Your task to perform on an android device: Open privacy settings Image 0: 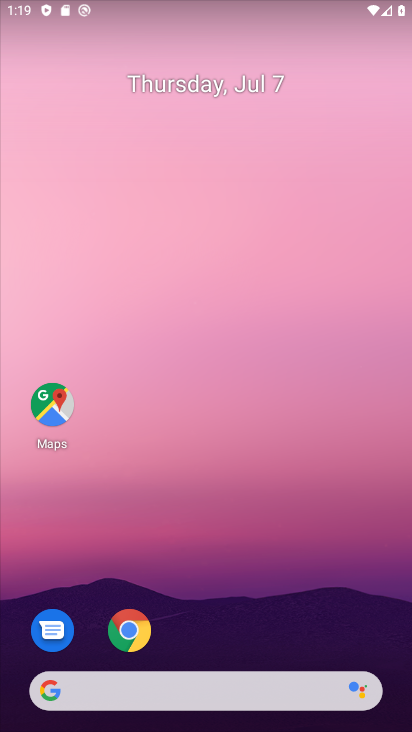
Step 0: drag from (245, 616) to (220, 83)
Your task to perform on an android device: Open privacy settings Image 1: 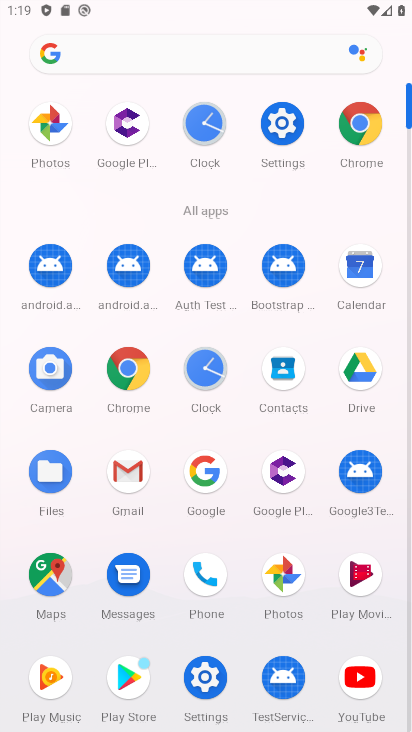
Step 1: click (283, 131)
Your task to perform on an android device: Open privacy settings Image 2: 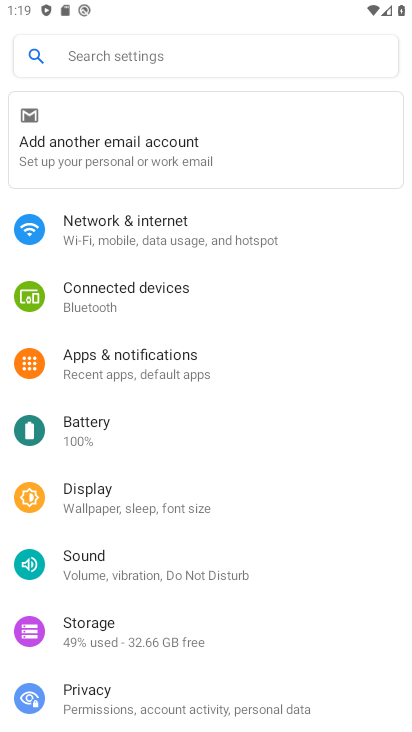
Step 2: click (203, 680)
Your task to perform on an android device: Open privacy settings Image 3: 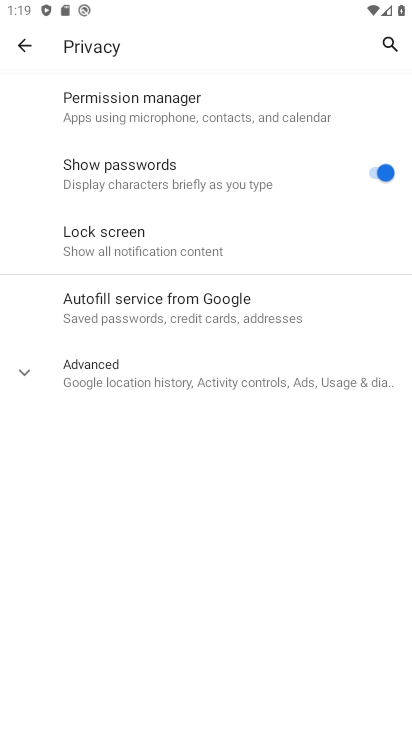
Step 3: task complete